Your task to perform on an android device: toggle improve location accuracy Image 0: 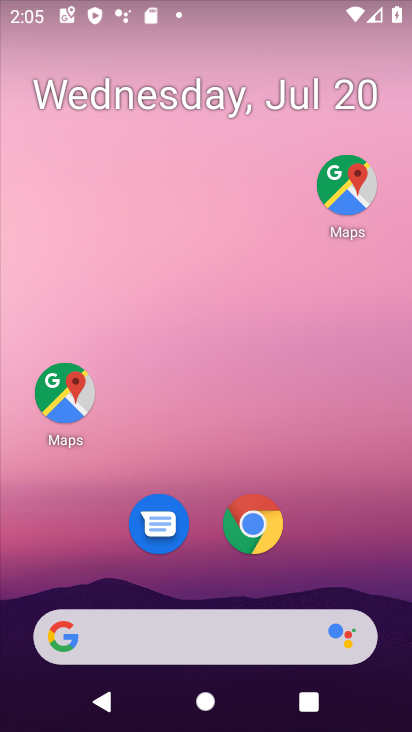
Step 0: drag from (206, 450) to (271, 13)
Your task to perform on an android device: toggle improve location accuracy Image 1: 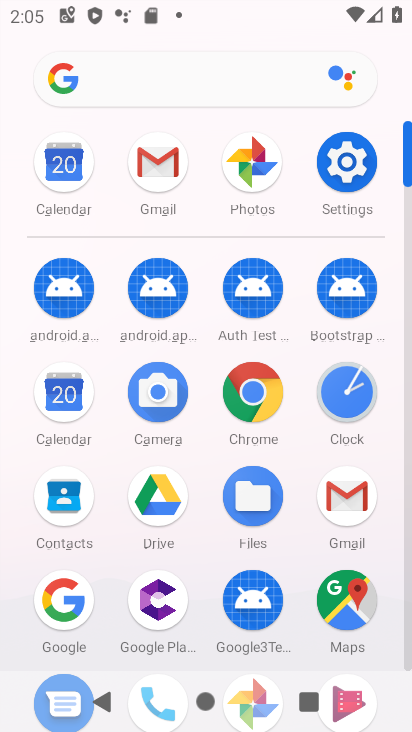
Step 1: click (356, 178)
Your task to perform on an android device: toggle improve location accuracy Image 2: 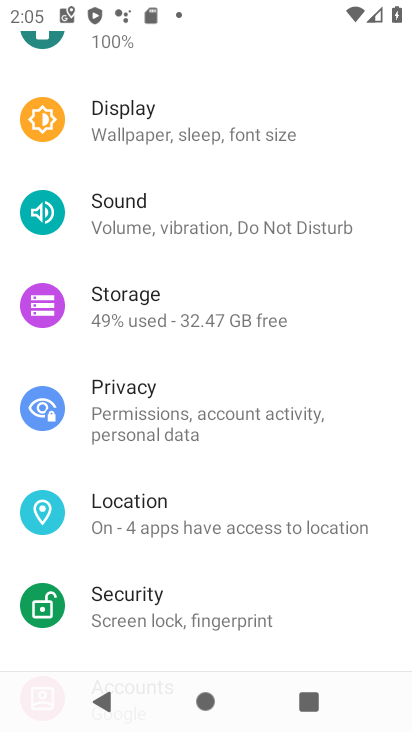
Step 2: click (225, 514)
Your task to perform on an android device: toggle improve location accuracy Image 3: 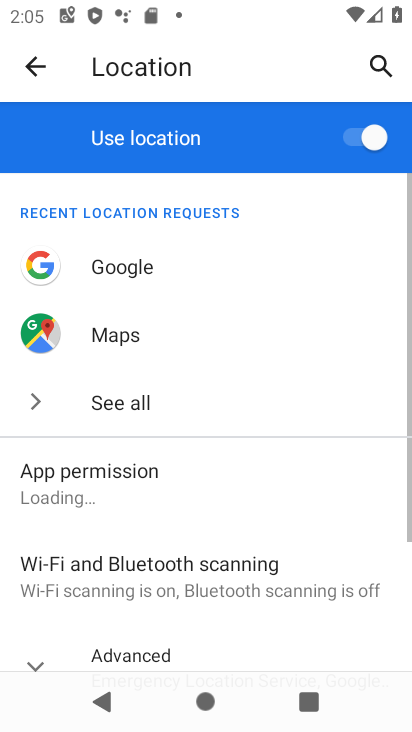
Step 3: drag from (226, 514) to (303, 63)
Your task to perform on an android device: toggle improve location accuracy Image 4: 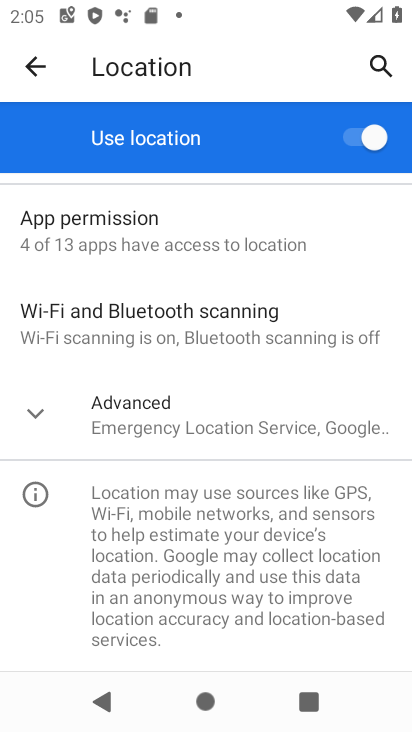
Step 4: click (34, 413)
Your task to perform on an android device: toggle improve location accuracy Image 5: 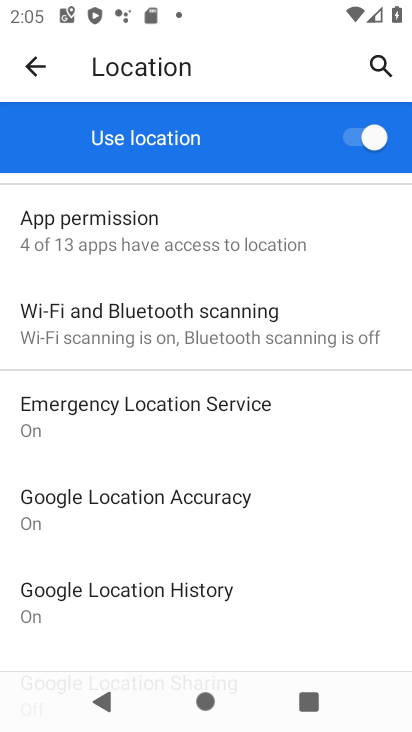
Step 5: click (185, 509)
Your task to perform on an android device: toggle improve location accuracy Image 6: 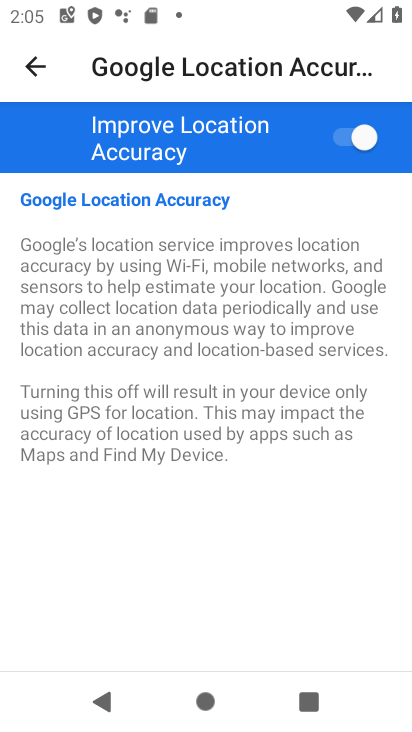
Step 6: click (357, 130)
Your task to perform on an android device: toggle improve location accuracy Image 7: 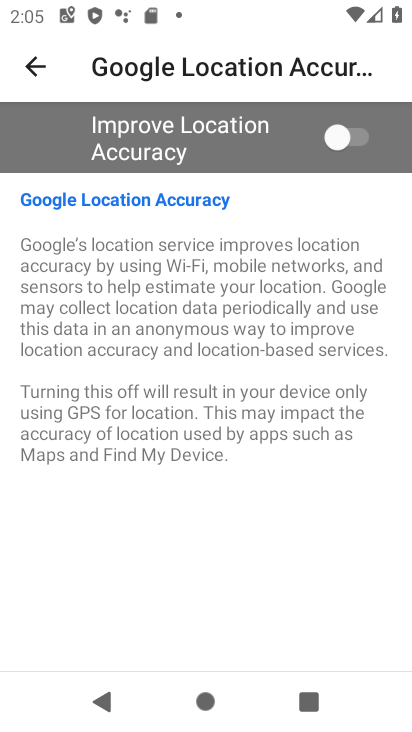
Step 7: task complete